Your task to perform on an android device: Empty the shopping cart on ebay.com. Search for macbook pro on ebay.com, select the first entry, and add it to the cart. Image 0: 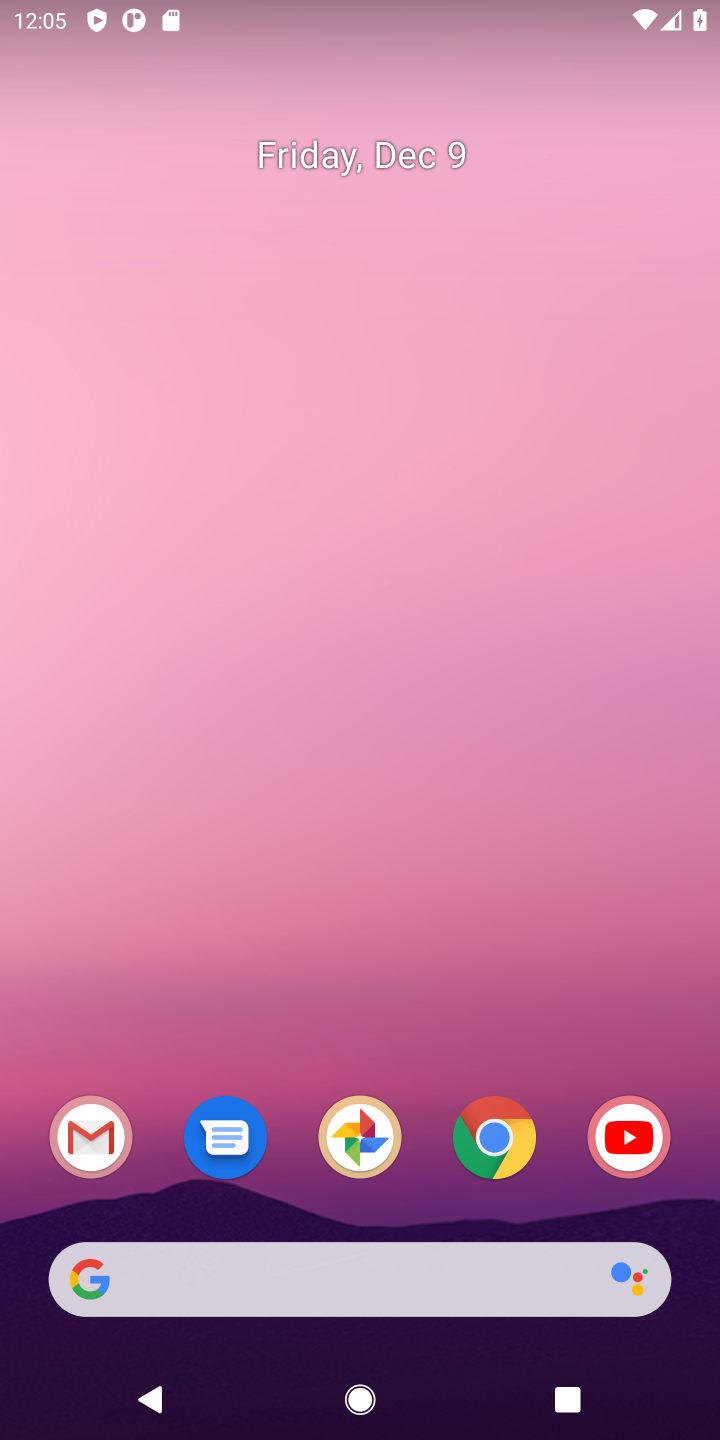
Step 0: click (484, 1123)
Your task to perform on an android device: Empty the shopping cart on ebay.com. Search for macbook pro on ebay.com, select the first entry, and add it to the cart. Image 1: 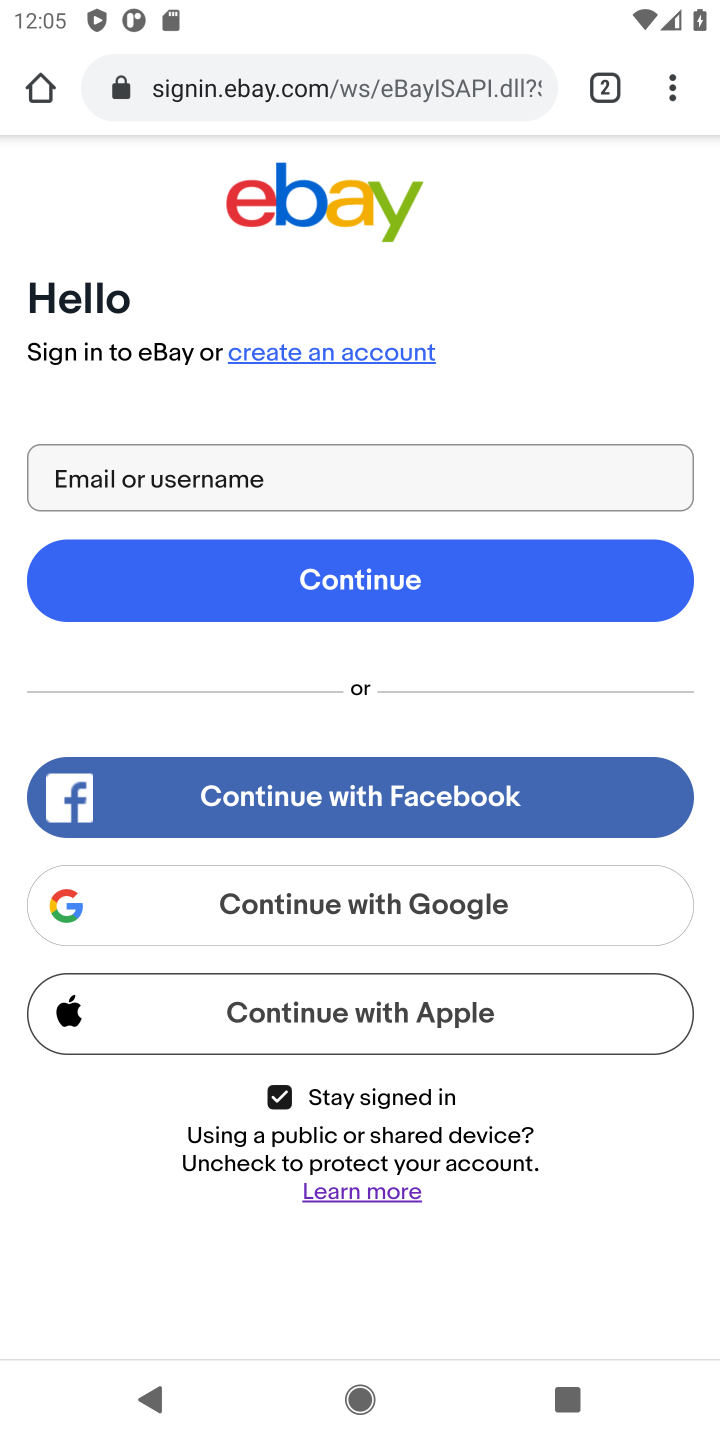
Step 1: click (373, 201)
Your task to perform on an android device: Empty the shopping cart on ebay.com. Search for macbook pro on ebay.com, select the first entry, and add it to the cart. Image 2: 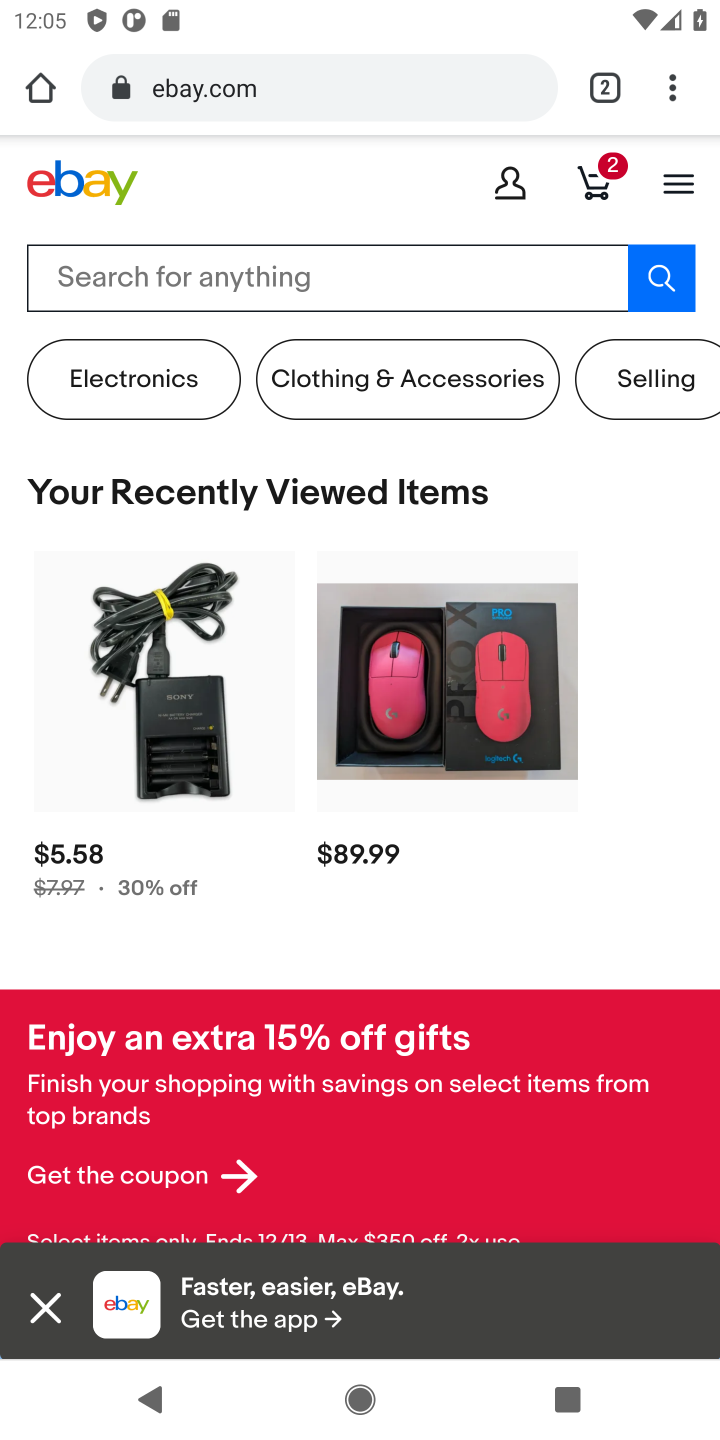
Step 2: click (587, 177)
Your task to perform on an android device: Empty the shopping cart on ebay.com. Search for macbook pro on ebay.com, select the first entry, and add it to the cart. Image 3: 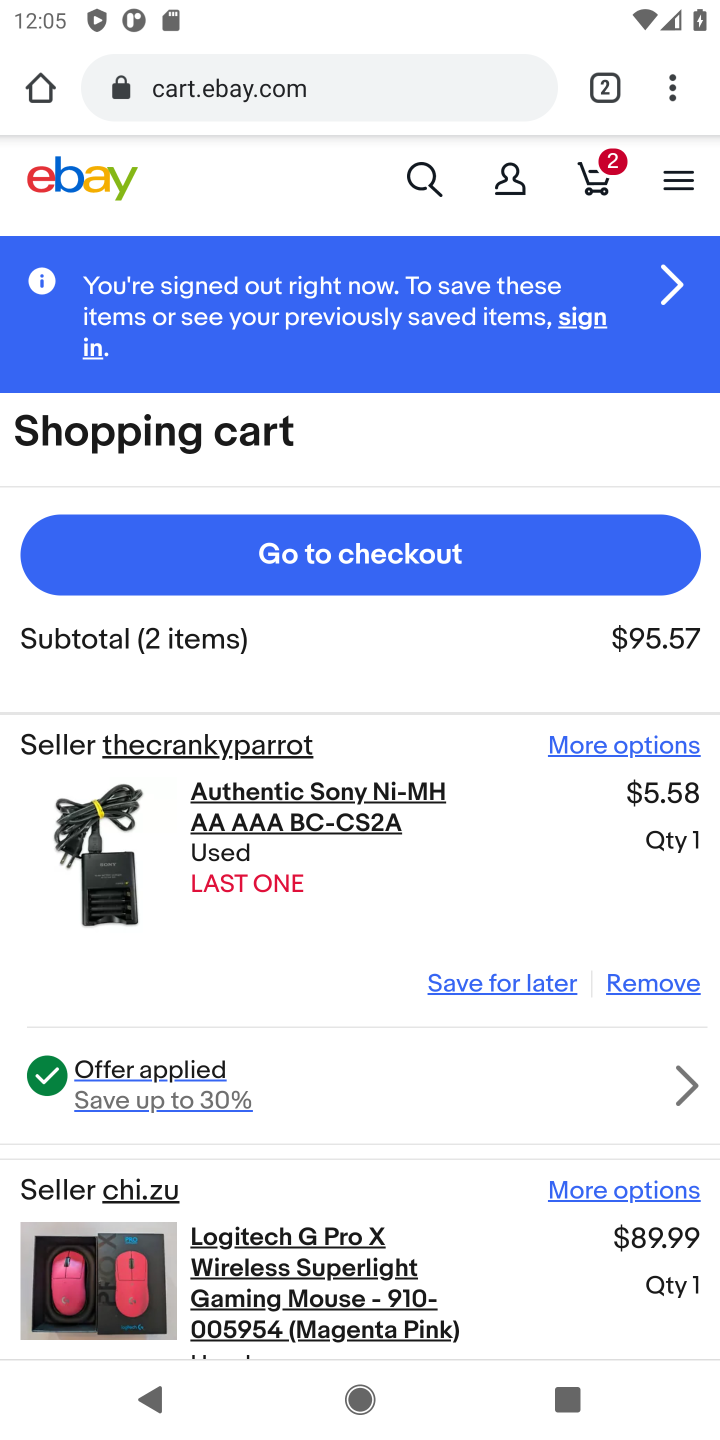
Step 3: click (646, 984)
Your task to perform on an android device: Empty the shopping cart on ebay.com. Search for macbook pro on ebay.com, select the first entry, and add it to the cart. Image 4: 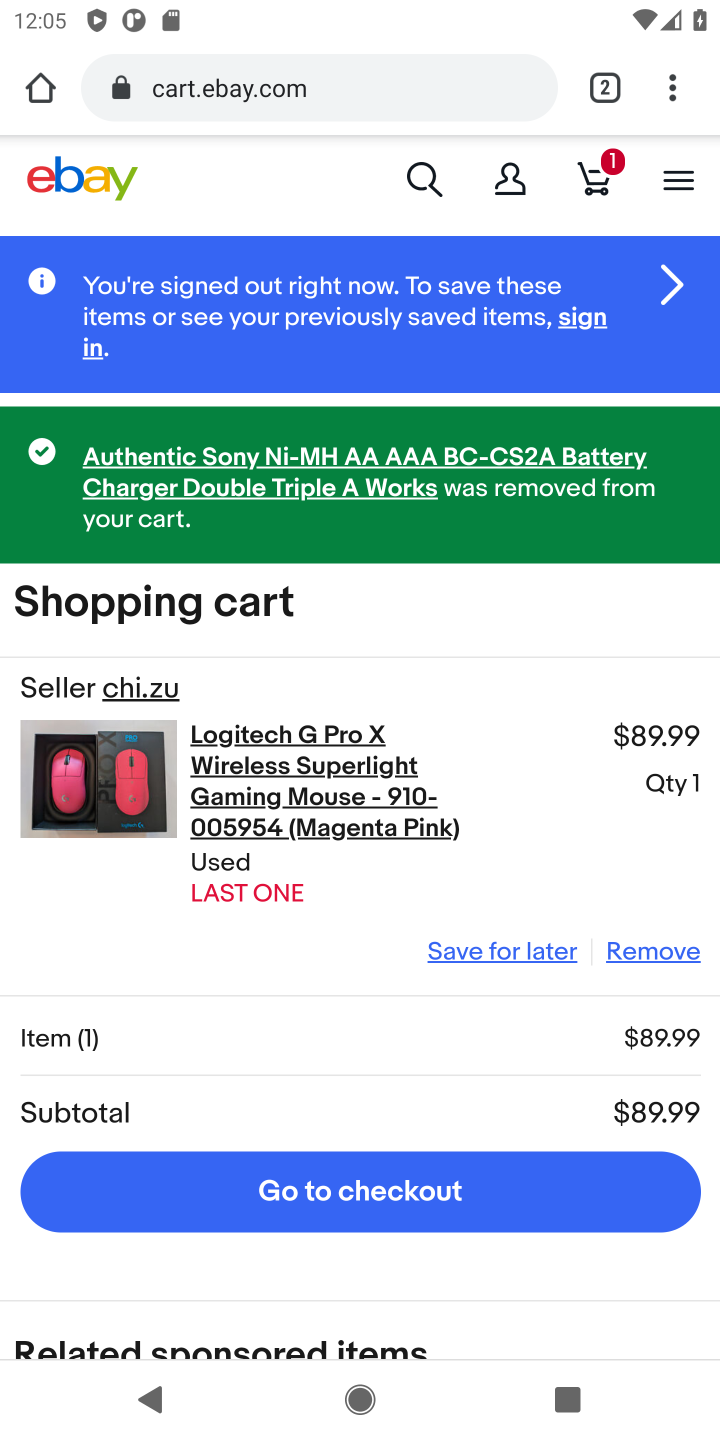
Step 4: click (644, 945)
Your task to perform on an android device: Empty the shopping cart on ebay.com. Search for macbook pro on ebay.com, select the first entry, and add it to the cart. Image 5: 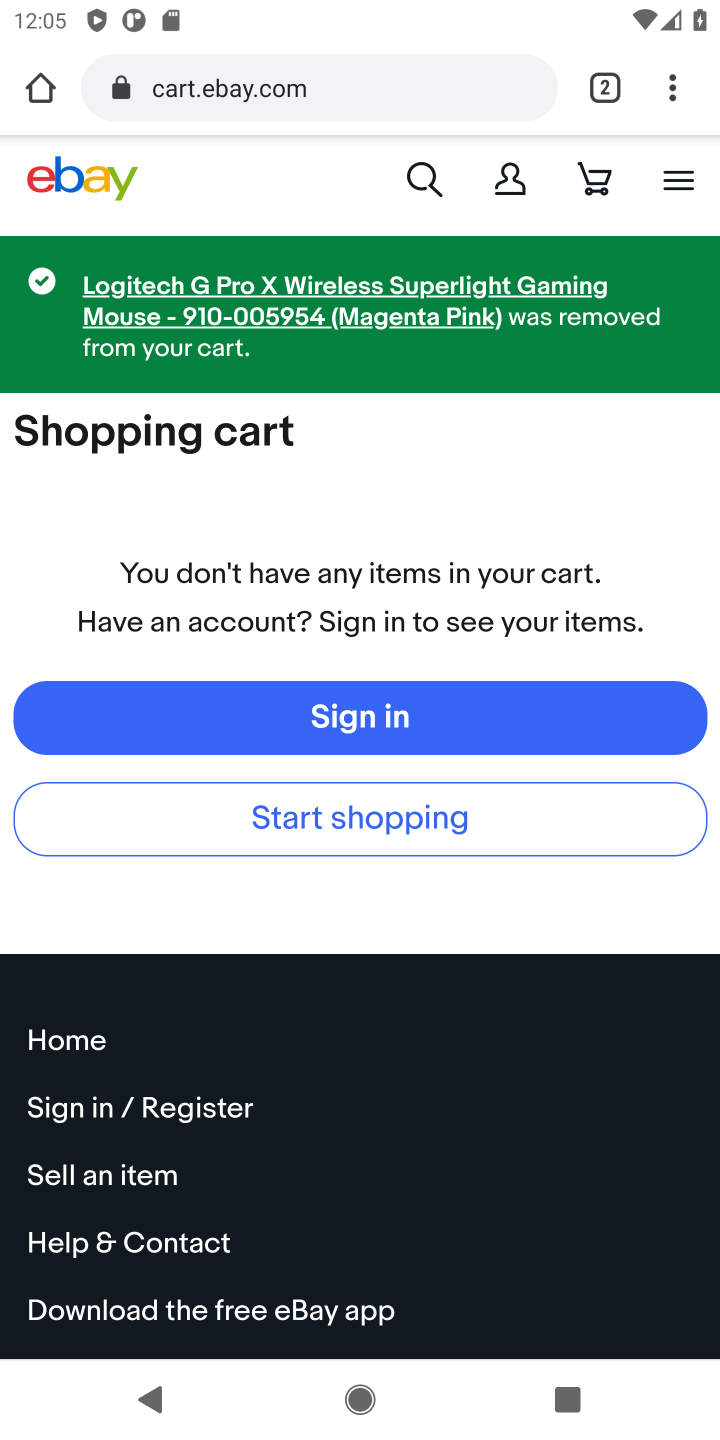
Step 5: click (415, 170)
Your task to perform on an android device: Empty the shopping cart on ebay.com. Search for macbook pro on ebay.com, select the first entry, and add it to the cart. Image 6: 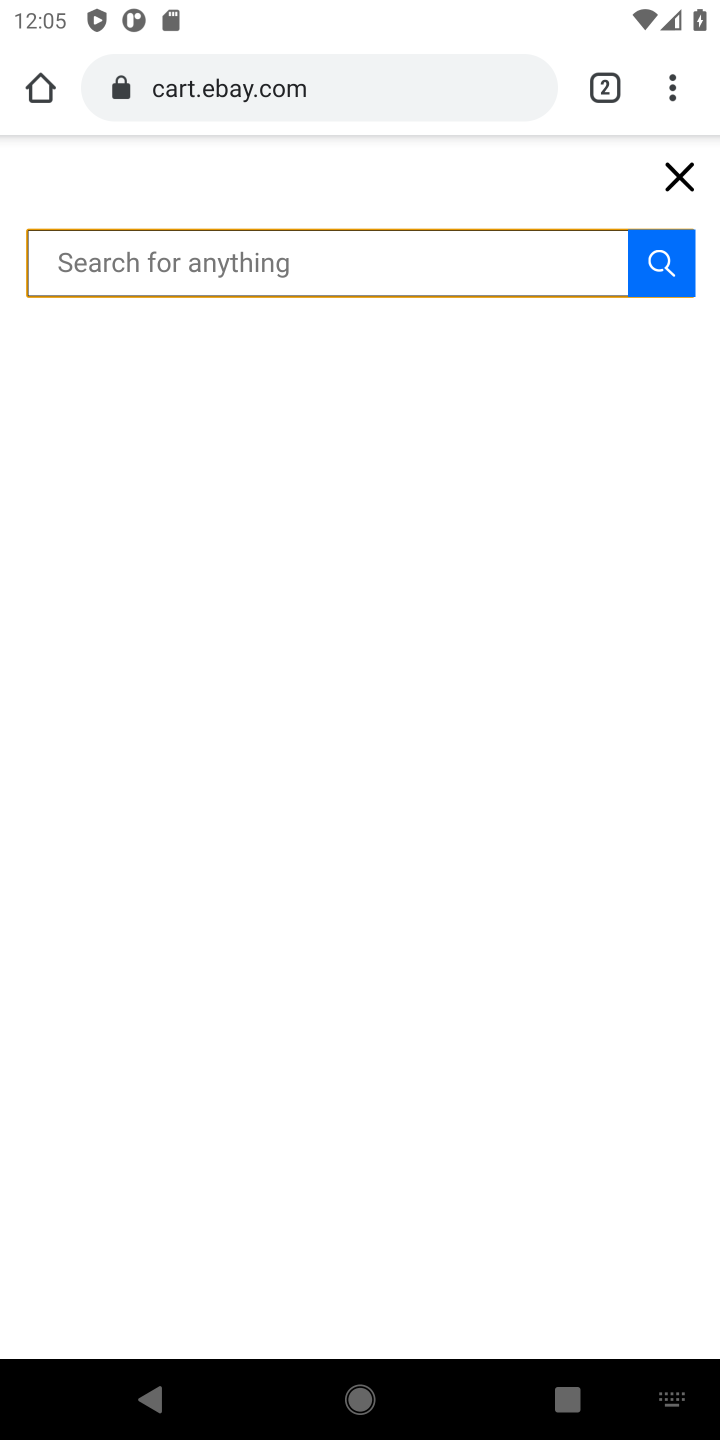
Step 6: type "MACBOOK PRO"
Your task to perform on an android device: Empty the shopping cart on ebay.com. Search for macbook pro on ebay.com, select the first entry, and add it to the cart. Image 7: 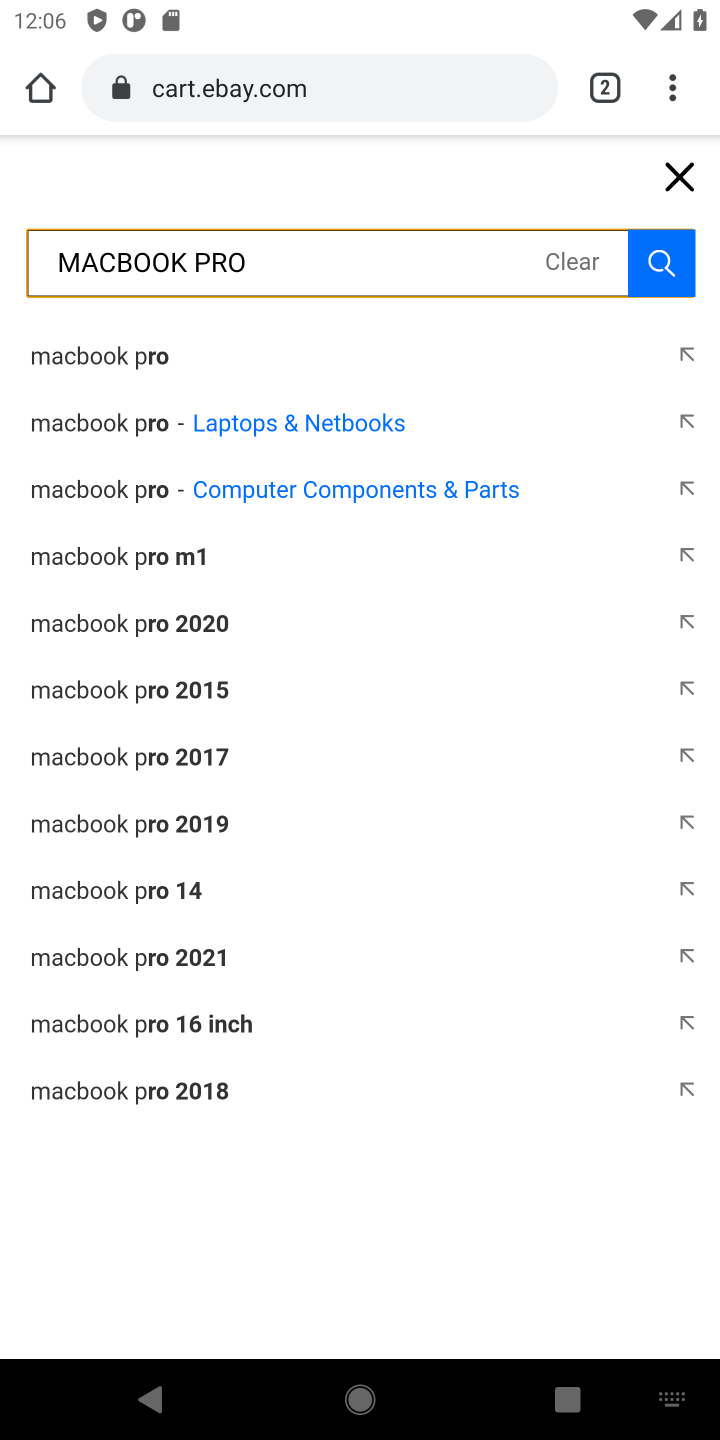
Step 7: click (157, 341)
Your task to perform on an android device: Empty the shopping cart on ebay.com. Search for macbook pro on ebay.com, select the first entry, and add it to the cart. Image 8: 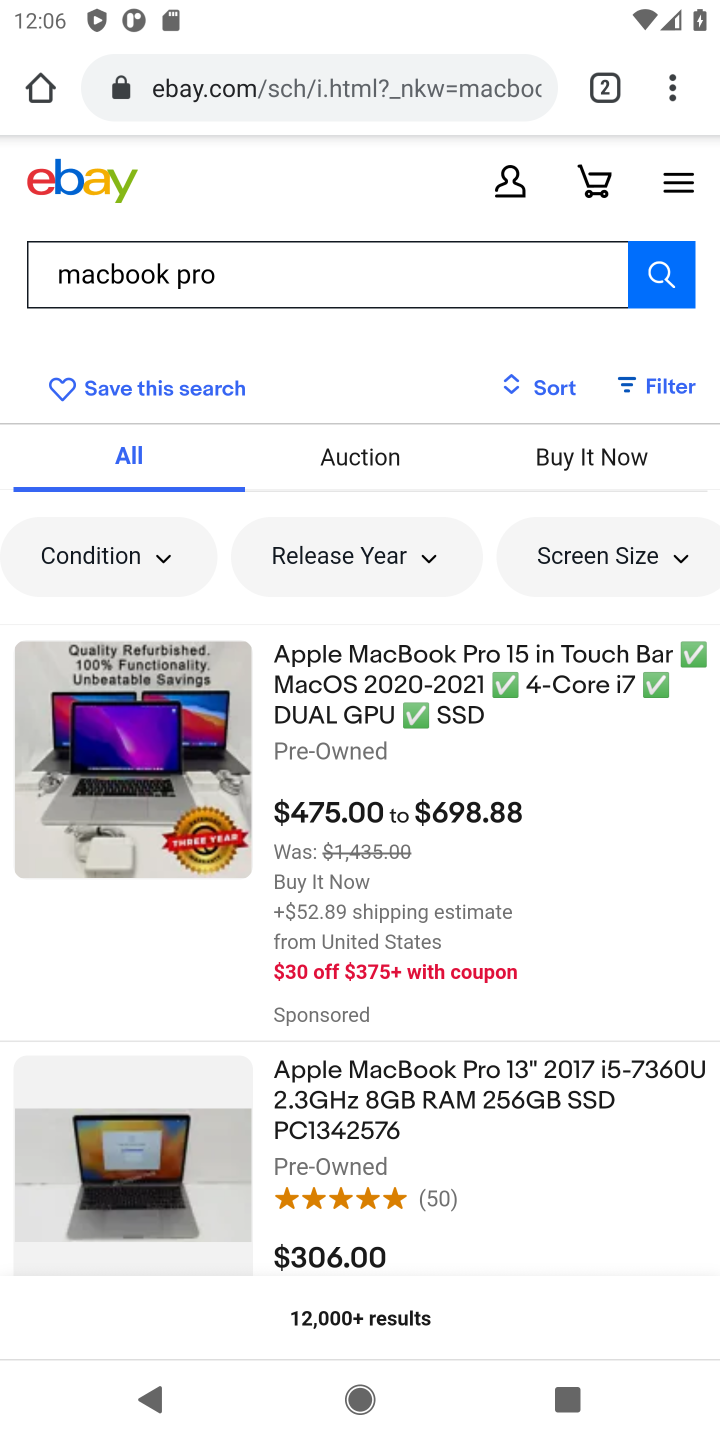
Step 8: click (584, 767)
Your task to perform on an android device: Empty the shopping cart on ebay.com. Search for macbook pro on ebay.com, select the first entry, and add it to the cart. Image 9: 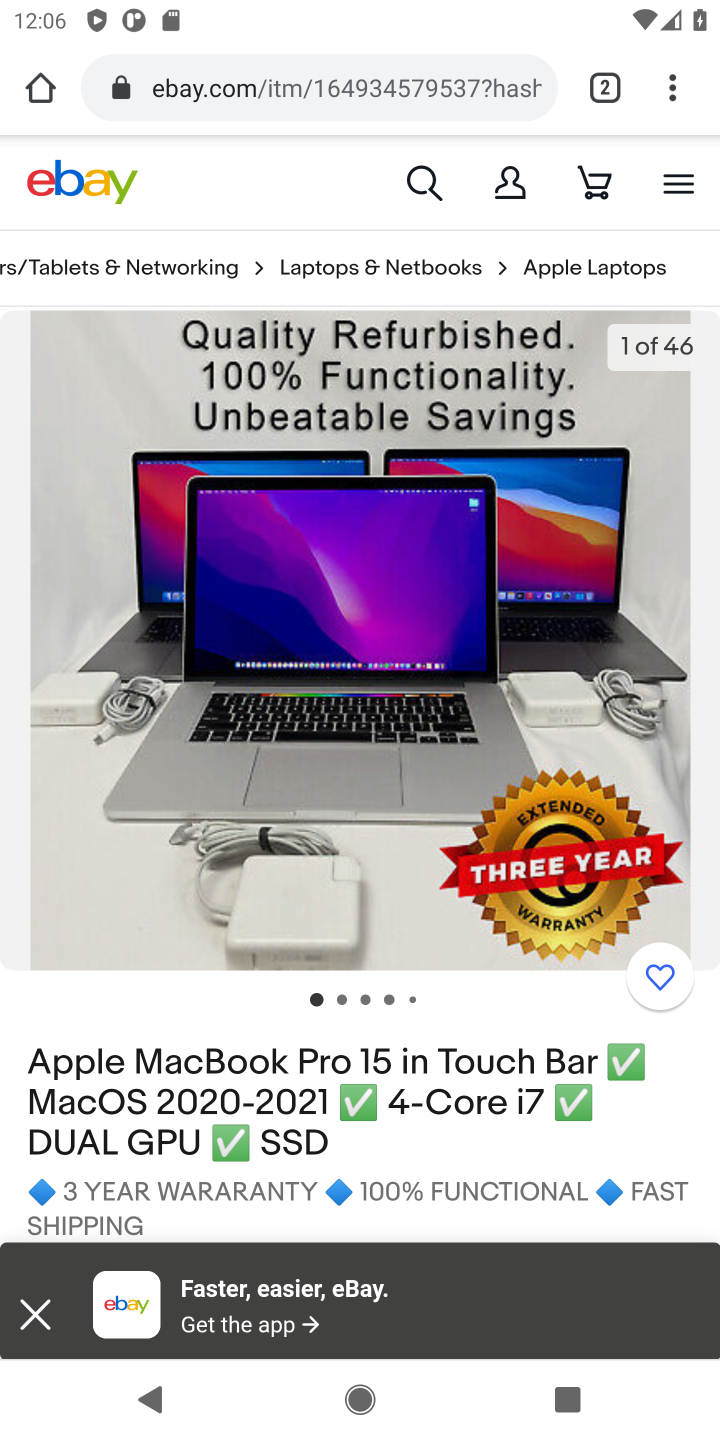
Step 9: drag from (485, 1196) to (446, 158)
Your task to perform on an android device: Empty the shopping cart on ebay.com. Search for macbook pro on ebay.com, select the first entry, and add it to the cart. Image 10: 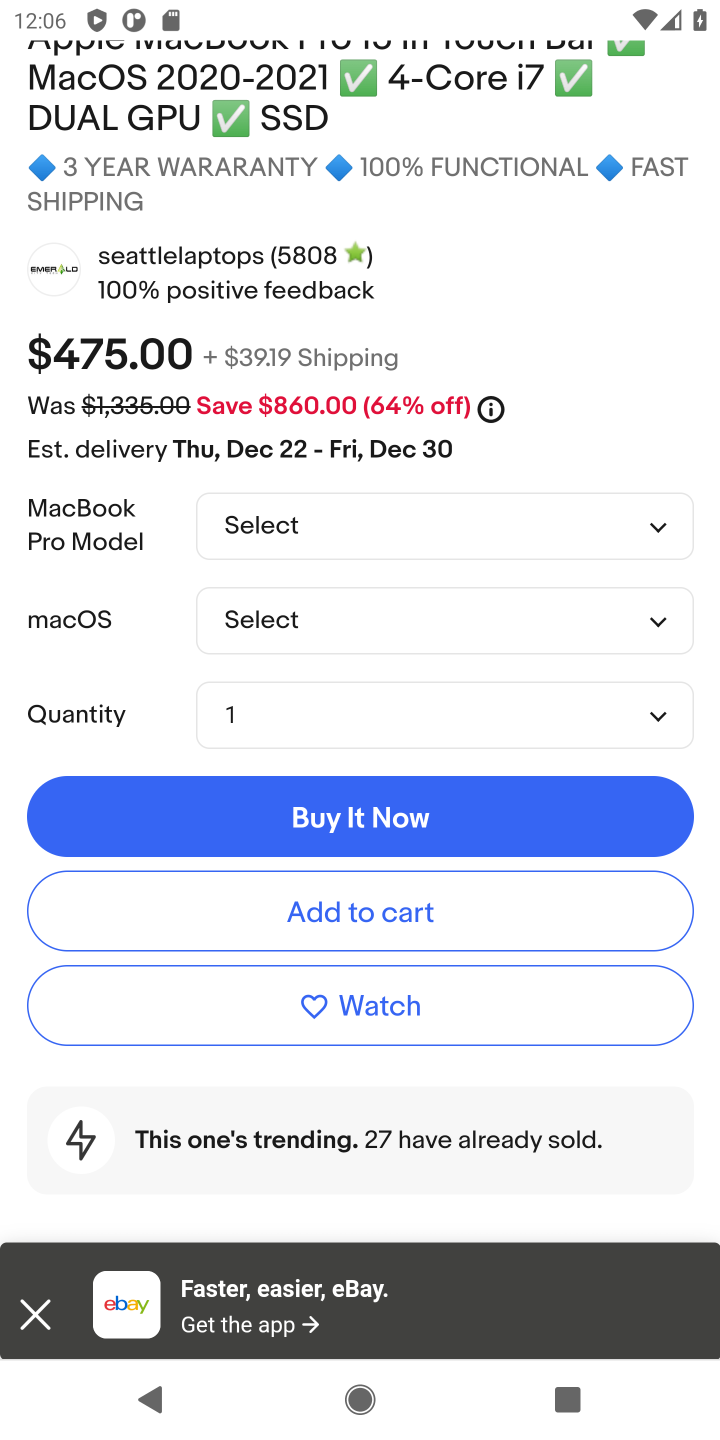
Step 10: click (354, 918)
Your task to perform on an android device: Empty the shopping cart on ebay.com. Search for macbook pro on ebay.com, select the first entry, and add it to the cart. Image 11: 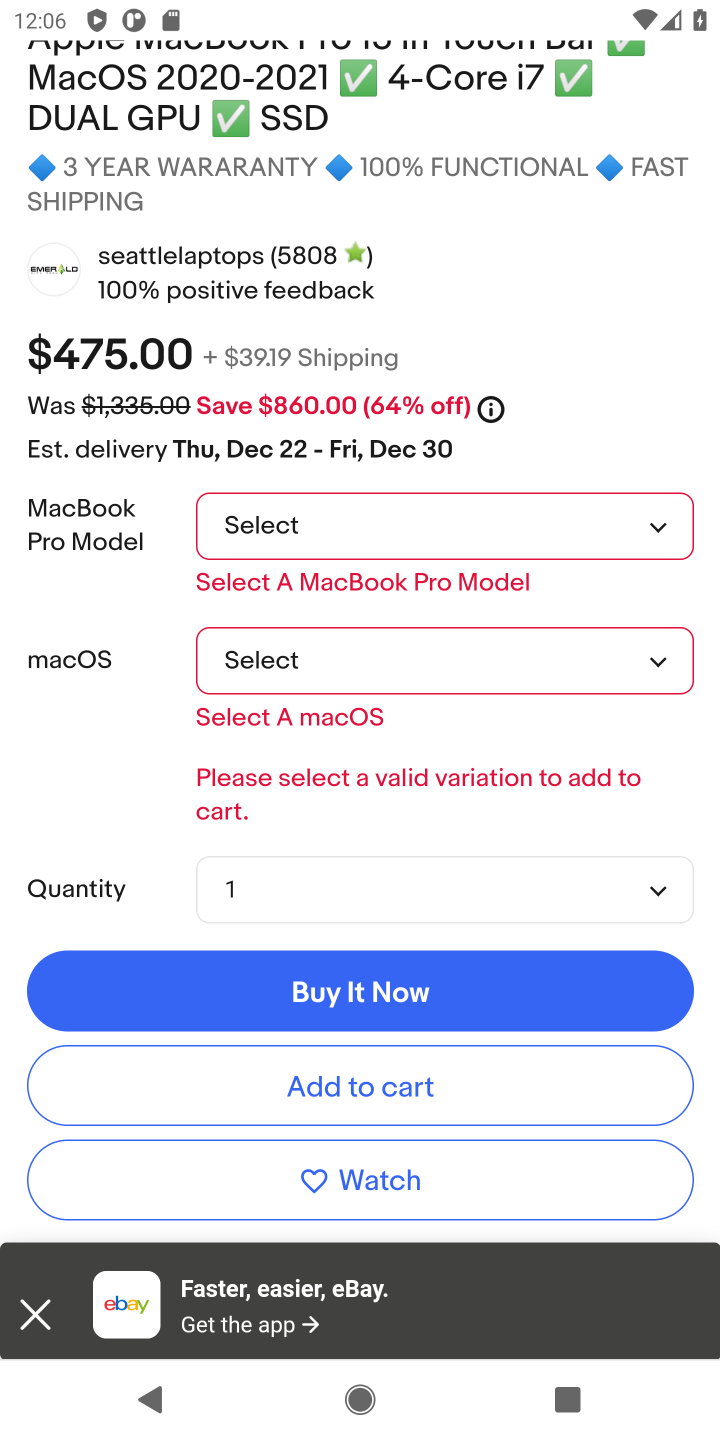
Step 11: click (542, 527)
Your task to perform on an android device: Empty the shopping cart on ebay.com. Search for macbook pro on ebay.com, select the first entry, and add it to the cart. Image 12: 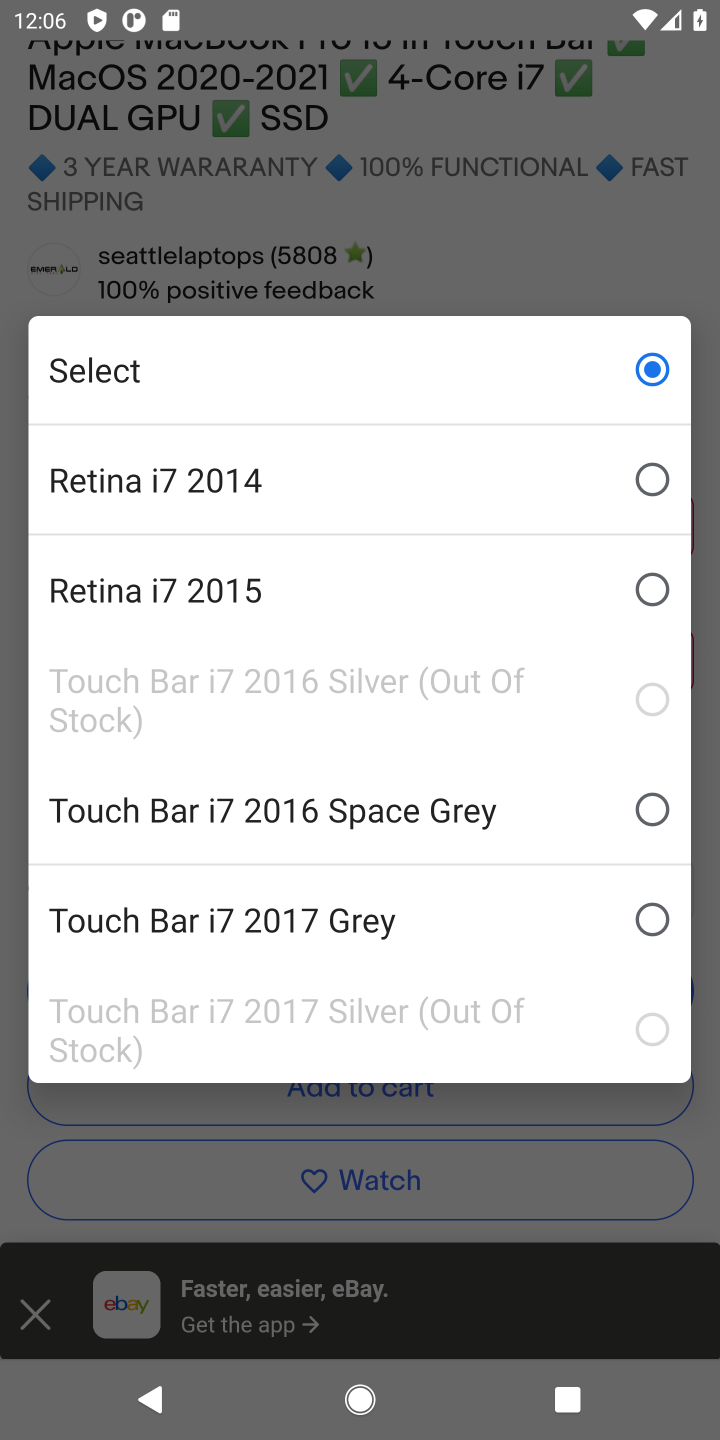
Step 12: click (356, 468)
Your task to perform on an android device: Empty the shopping cart on ebay.com. Search for macbook pro on ebay.com, select the first entry, and add it to the cart. Image 13: 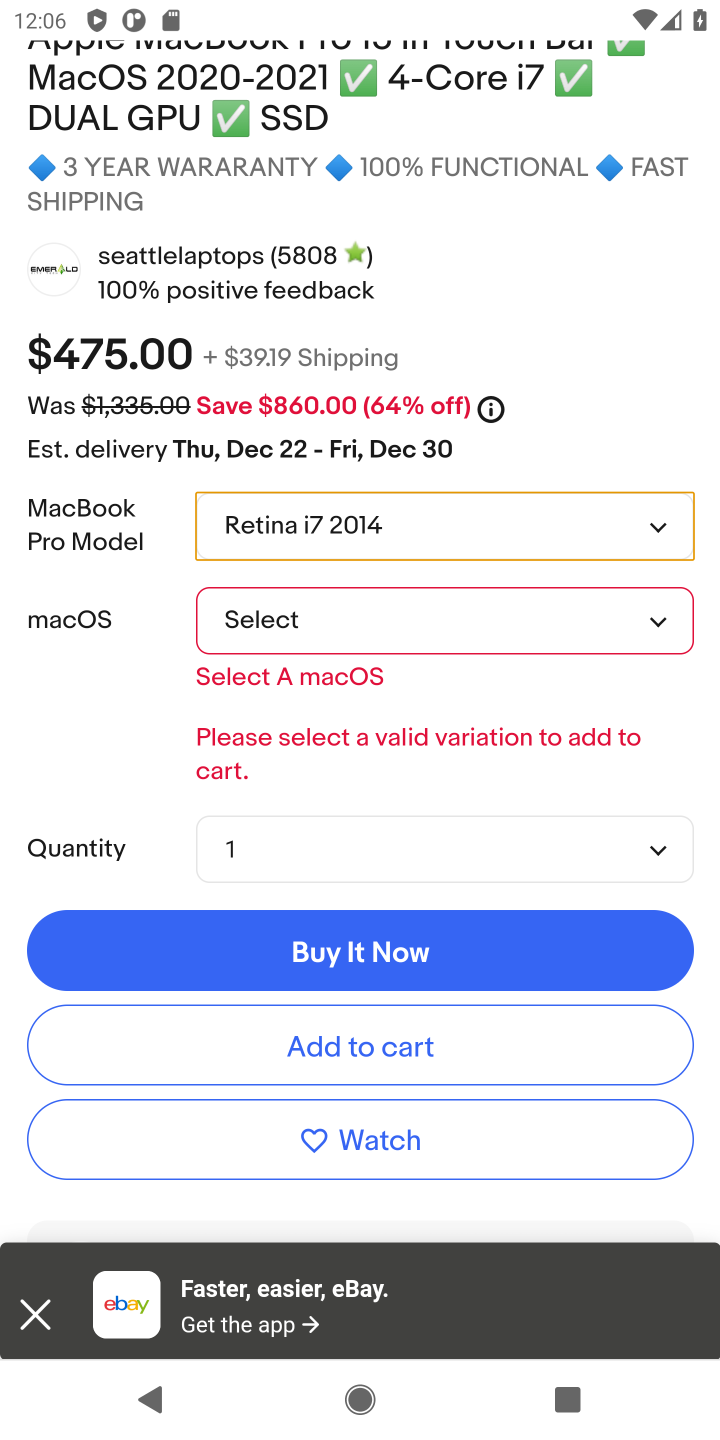
Step 13: click (429, 615)
Your task to perform on an android device: Empty the shopping cart on ebay.com. Search for macbook pro on ebay.com, select the first entry, and add it to the cart. Image 14: 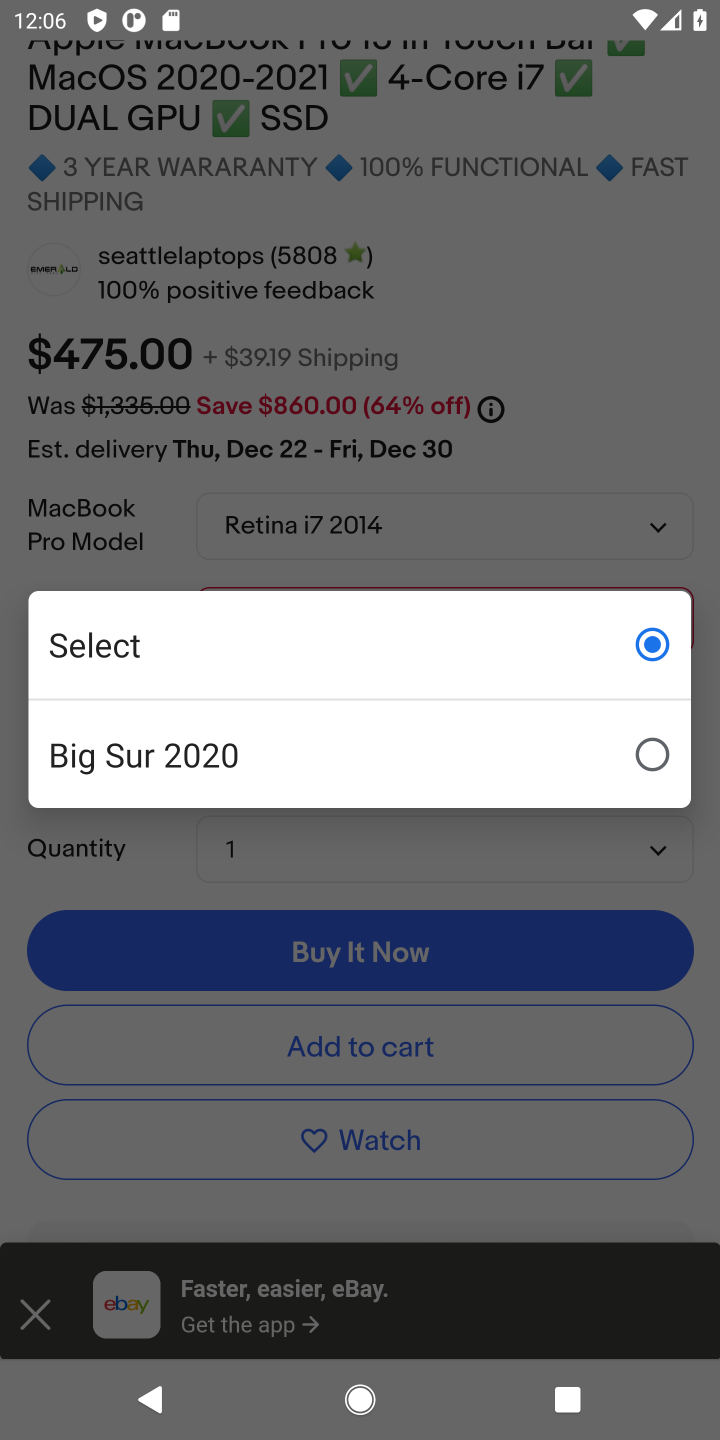
Step 14: click (322, 747)
Your task to perform on an android device: Empty the shopping cart on ebay.com. Search for macbook pro on ebay.com, select the first entry, and add it to the cart. Image 15: 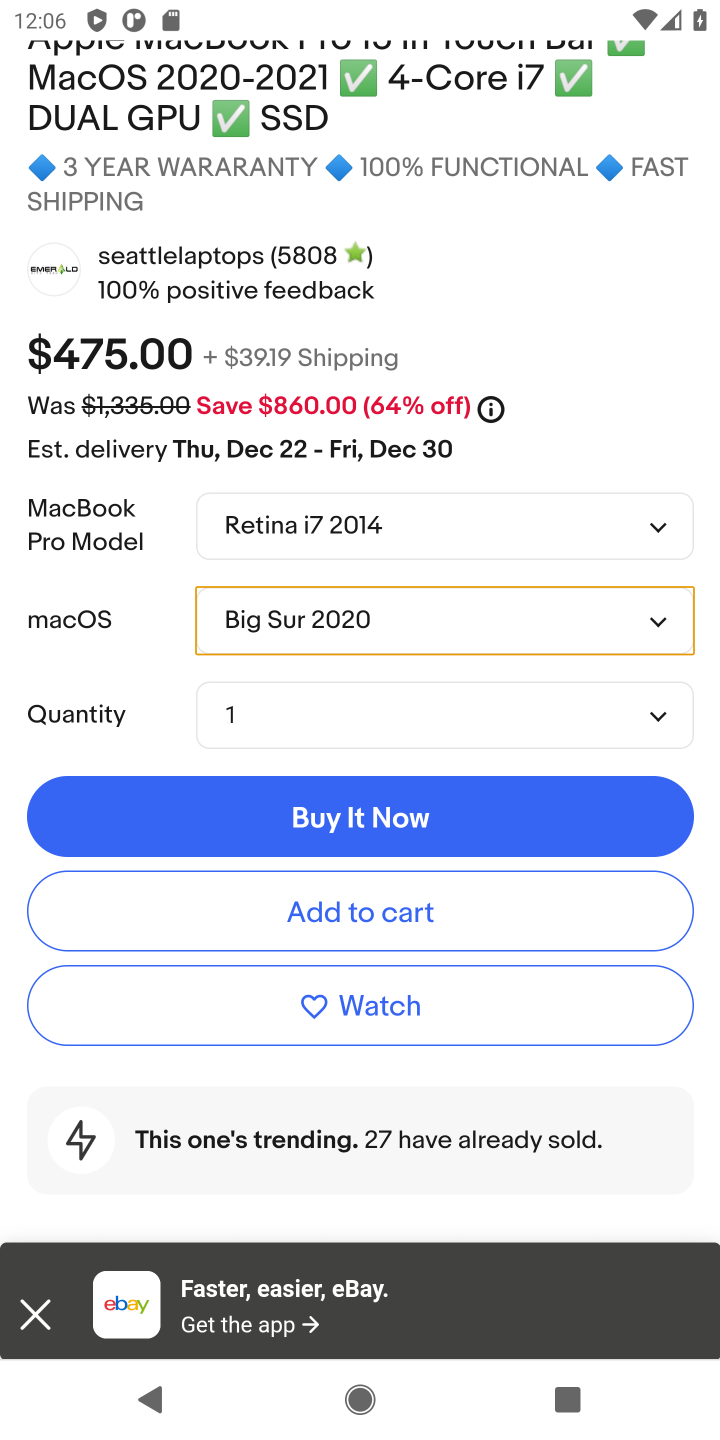
Step 15: click (407, 839)
Your task to perform on an android device: Empty the shopping cart on ebay.com. Search for macbook pro on ebay.com, select the first entry, and add it to the cart. Image 16: 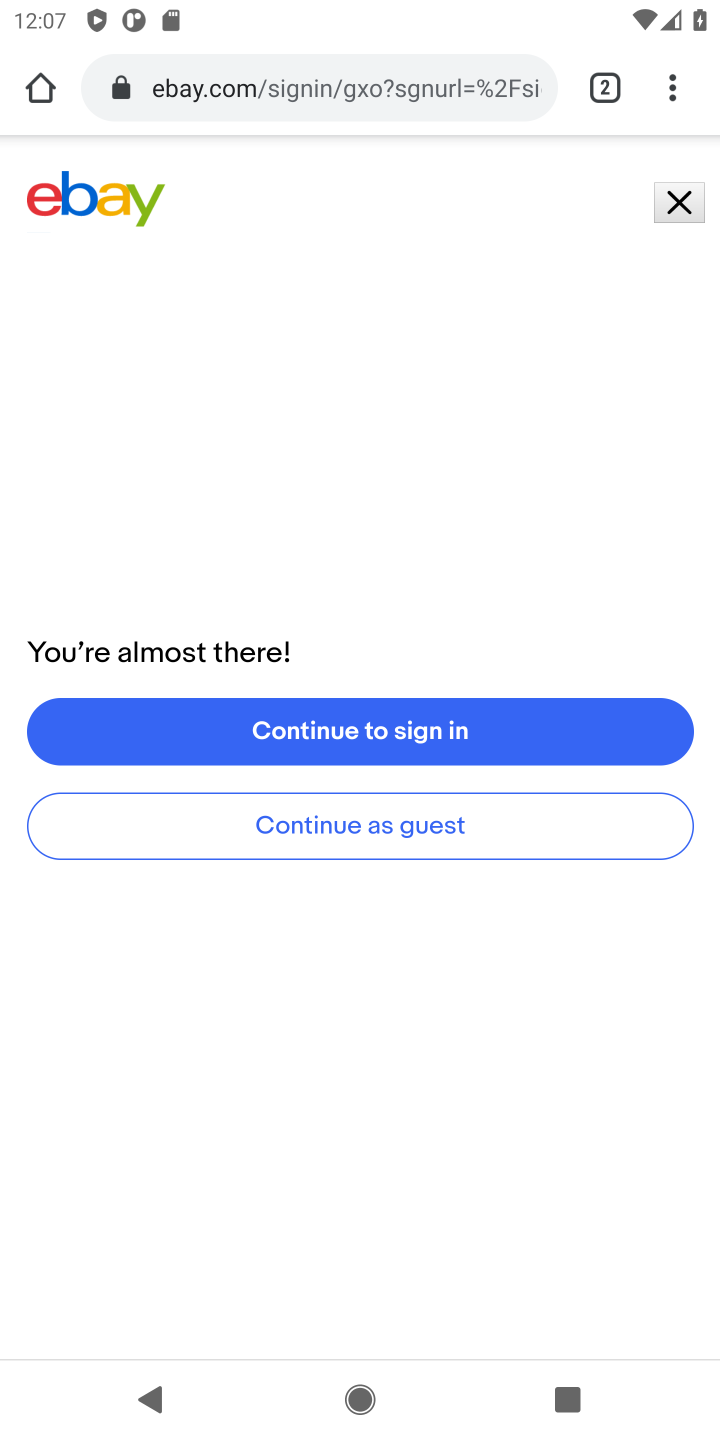
Step 16: task complete